Your task to perform on an android device: turn off notifications settings in the gmail app Image 0: 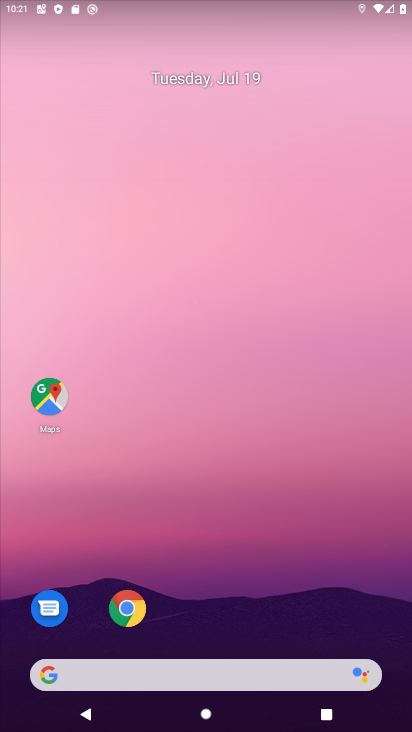
Step 0: drag from (224, 636) to (126, 58)
Your task to perform on an android device: turn off notifications settings in the gmail app Image 1: 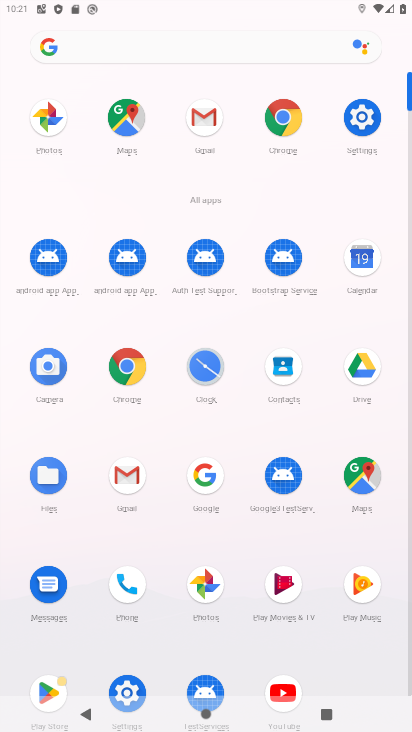
Step 1: click (131, 479)
Your task to perform on an android device: turn off notifications settings in the gmail app Image 2: 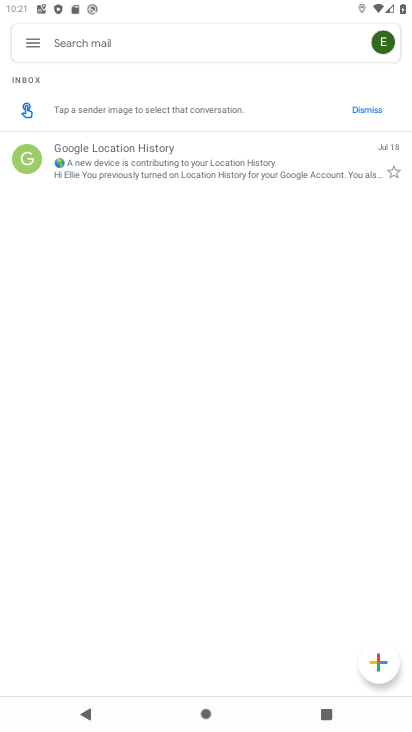
Step 2: click (31, 37)
Your task to perform on an android device: turn off notifications settings in the gmail app Image 3: 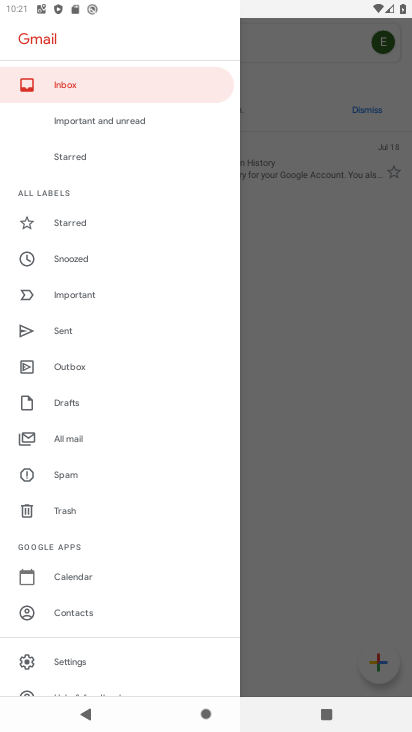
Step 3: click (77, 659)
Your task to perform on an android device: turn off notifications settings in the gmail app Image 4: 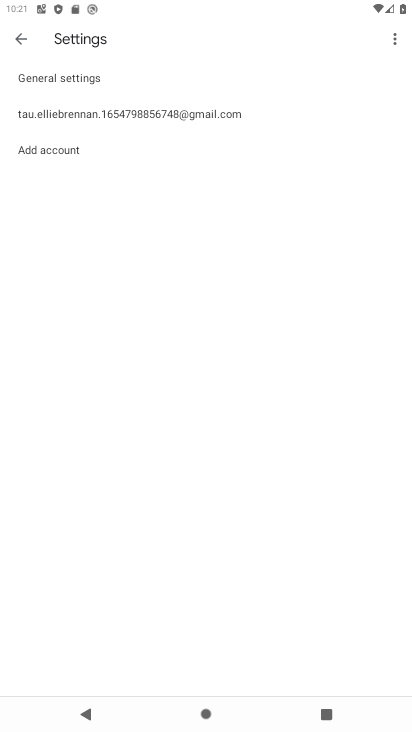
Step 4: click (46, 80)
Your task to perform on an android device: turn off notifications settings in the gmail app Image 5: 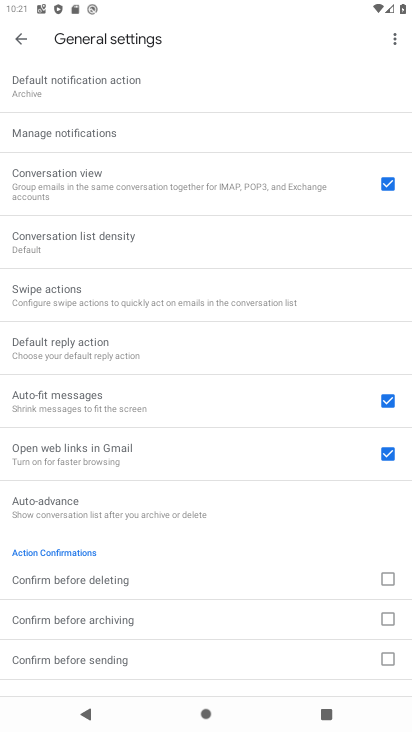
Step 5: click (39, 133)
Your task to perform on an android device: turn off notifications settings in the gmail app Image 6: 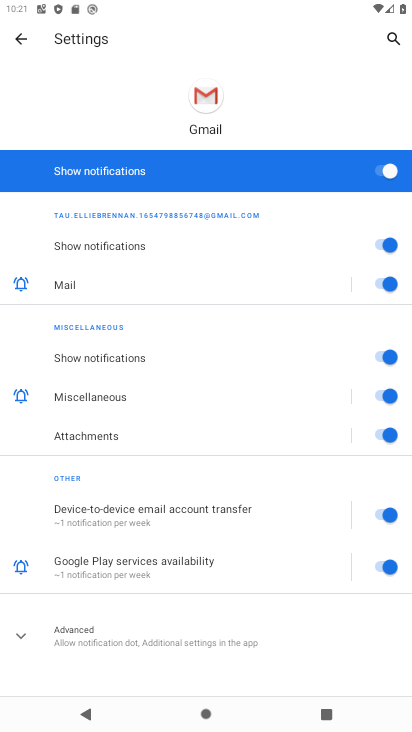
Step 6: click (368, 165)
Your task to perform on an android device: turn off notifications settings in the gmail app Image 7: 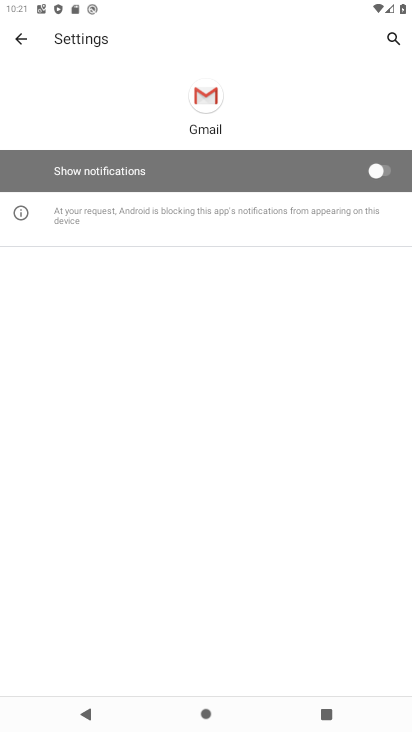
Step 7: task complete